Your task to perform on an android device: set the timer Image 0: 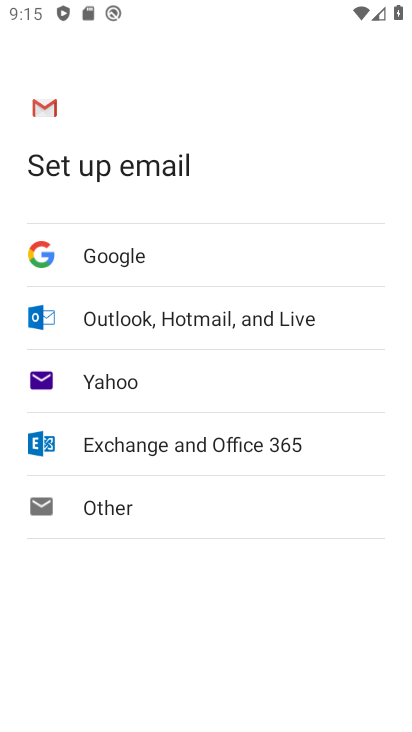
Step 0: press home button
Your task to perform on an android device: set the timer Image 1: 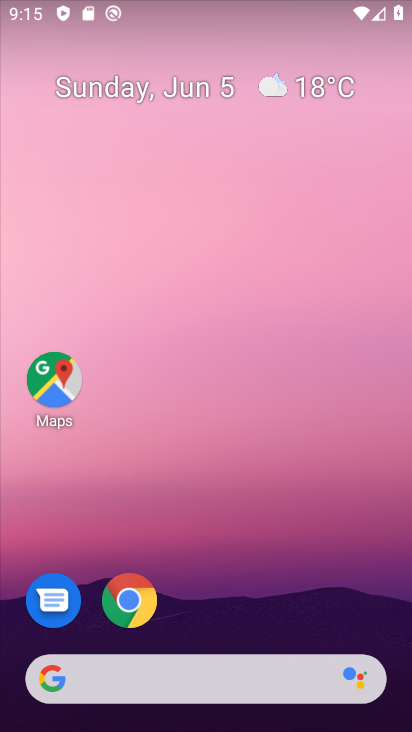
Step 1: drag from (250, 592) to (223, 157)
Your task to perform on an android device: set the timer Image 2: 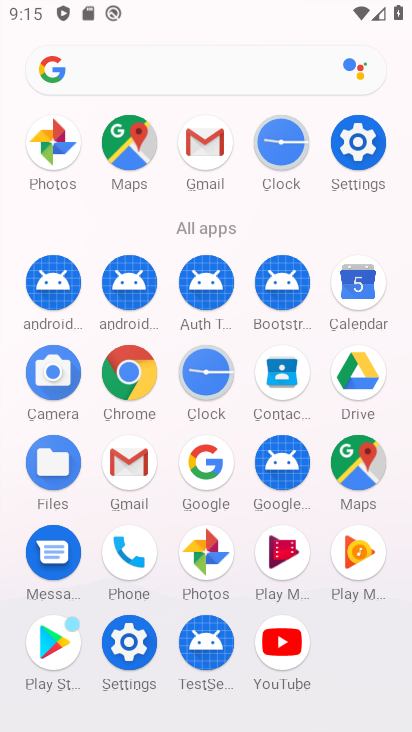
Step 2: click (202, 381)
Your task to perform on an android device: set the timer Image 3: 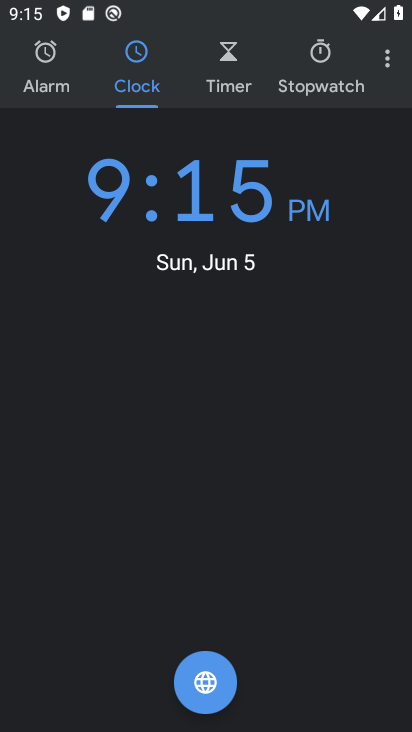
Step 3: click (215, 72)
Your task to perform on an android device: set the timer Image 4: 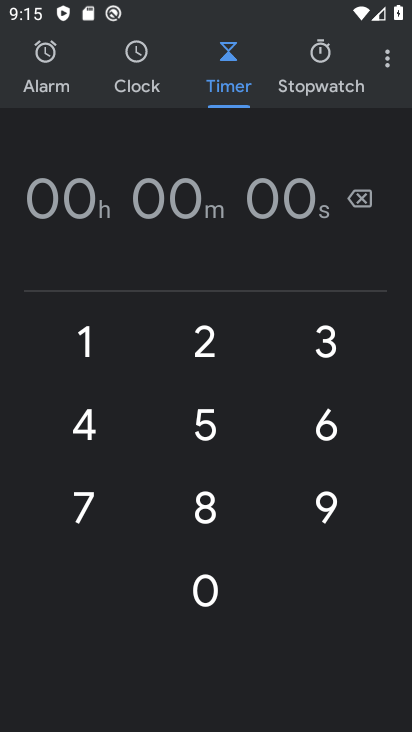
Step 4: click (181, 419)
Your task to perform on an android device: set the timer Image 5: 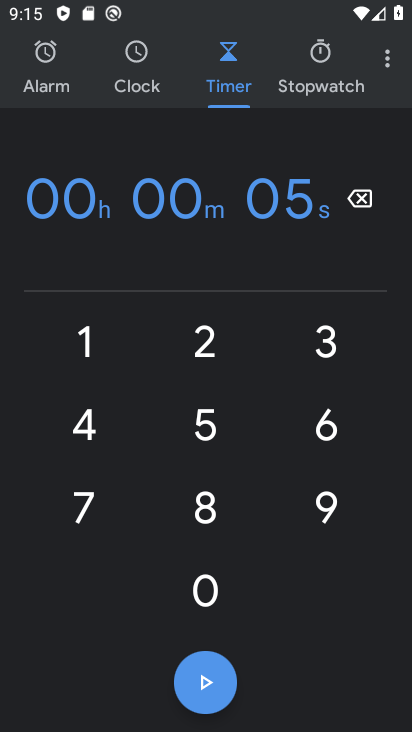
Step 5: task complete